Your task to perform on an android device: toggle pop-ups in chrome Image 0: 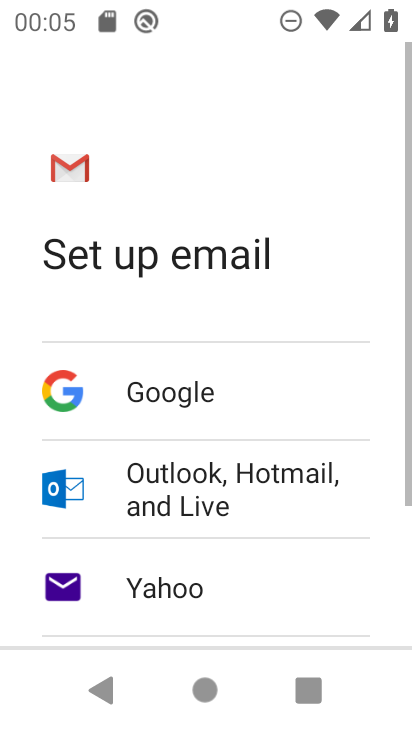
Step 0: press home button
Your task to perform on an android device: toggle pop-ups in chrome Image 1: 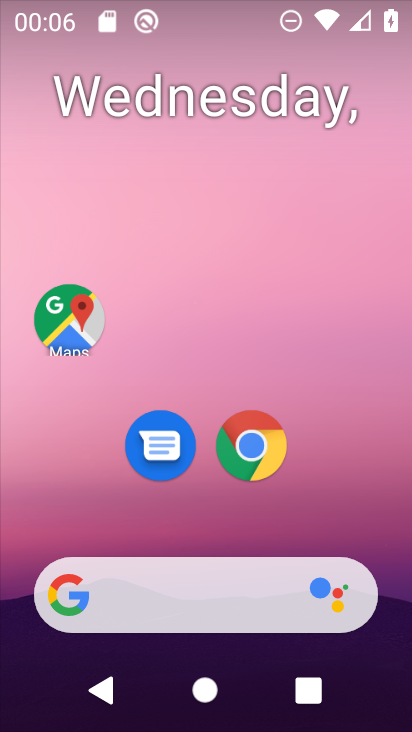
Step 1: click (253, 438)
Your task to perform on an android device: toggle pop-ups in chrome Image 2: 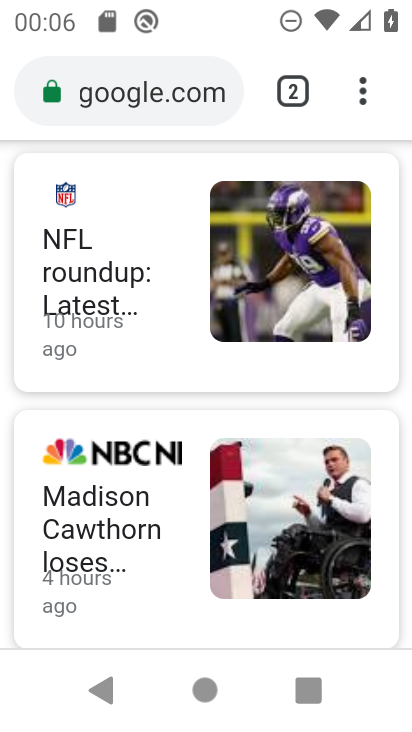
Step 2: click (360, 105)
Your task to perform on an android device: toggle pop-ups in chrome Image 3: 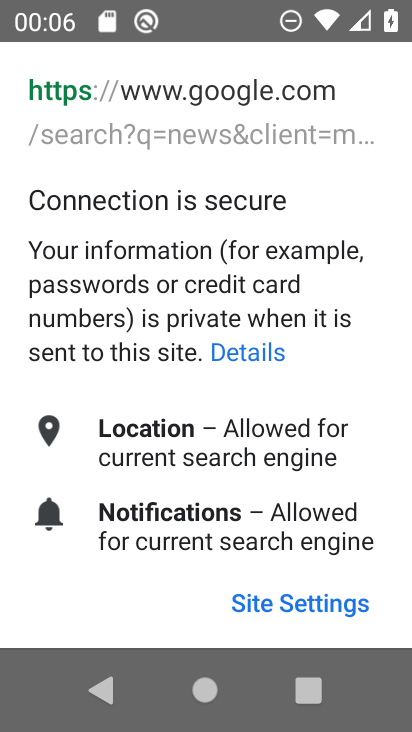
Step 3: press back button
Your task to perform on an android device: toggle pop-ups in chrome Image 4: 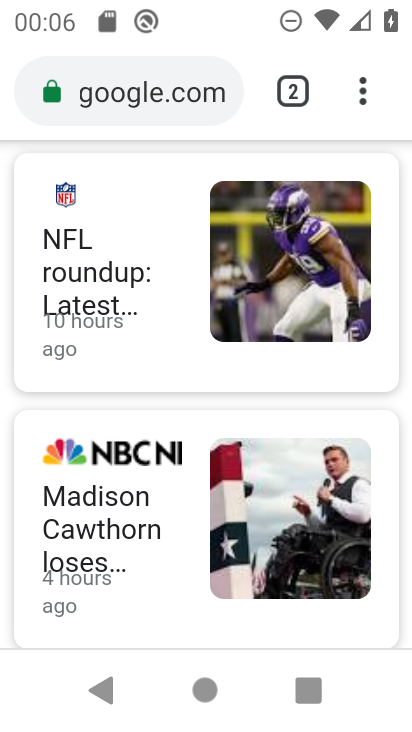
Step 4: click (369, 89)
Your task to perform on an android device: toggle pop-ups in chrome Image 5: 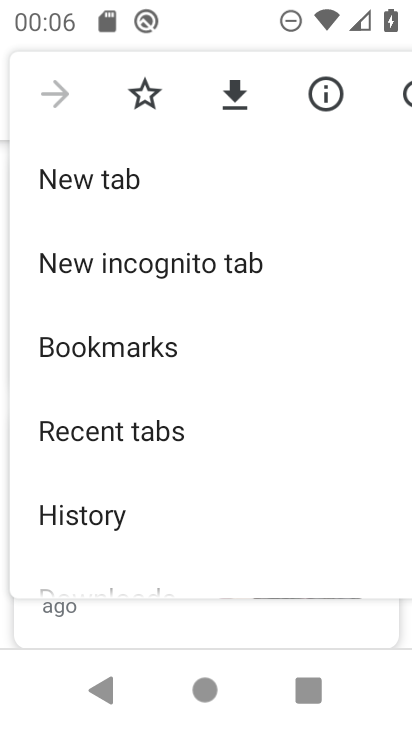
Step 5: drag from (205, 505) to (181, 219)
Your task to perform on an android device: toggle pop-ups in chrome Image 6: 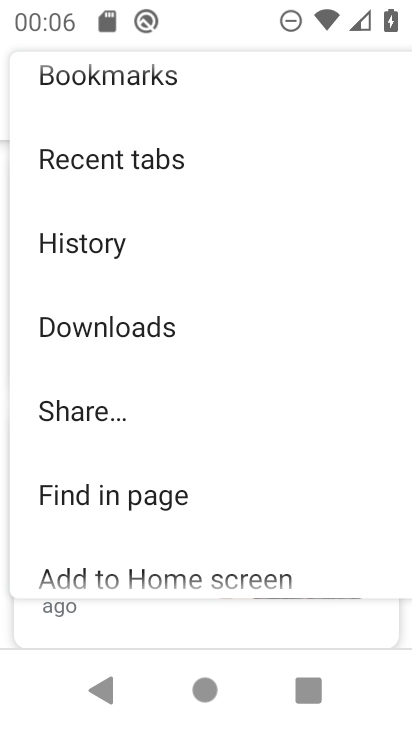
Step 6: drag from (210, 468) to (238, 161)
Your task to perform on an android device: toggle pop-ups in chrome Image 7: 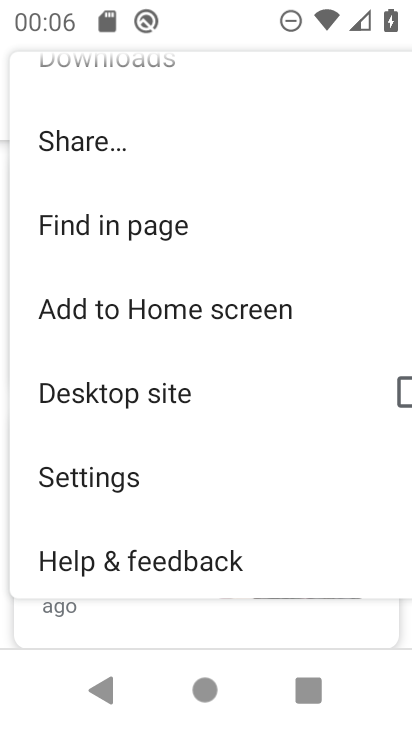
Step 7: click (168, 469)
Your task to perform on an android device: toggle pop-ups in chrome Image 8: 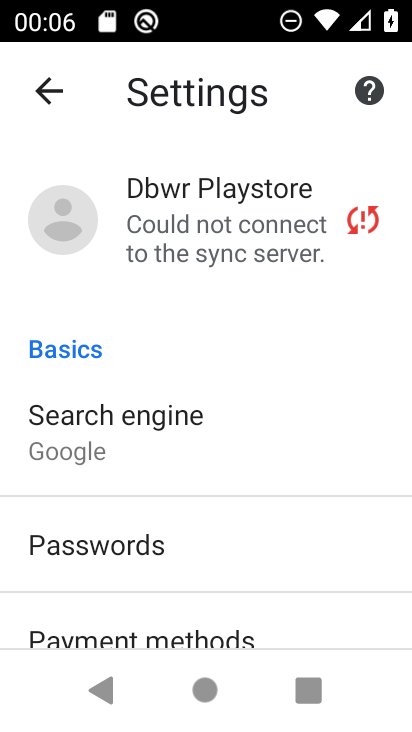
Step 8: drag from (164, 586) to (160, 337)
Your task to perform on an android device: toggle pop-ups in chrome Image 9: 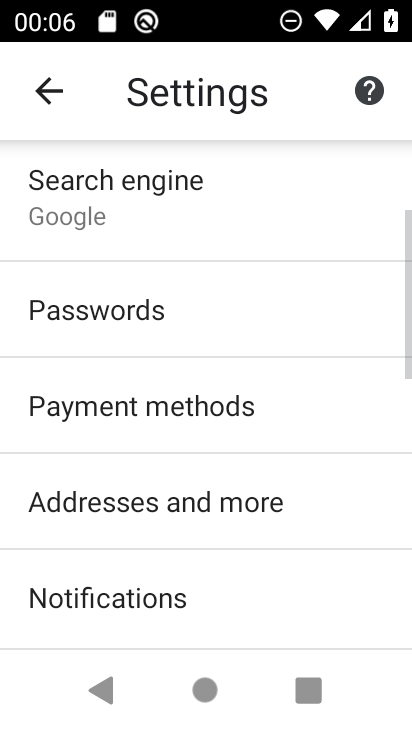
Step 9: drag from (156, 573) to (219, 305)
Your task to perform on an android device: toggle pop-ups in chrome Image 10: 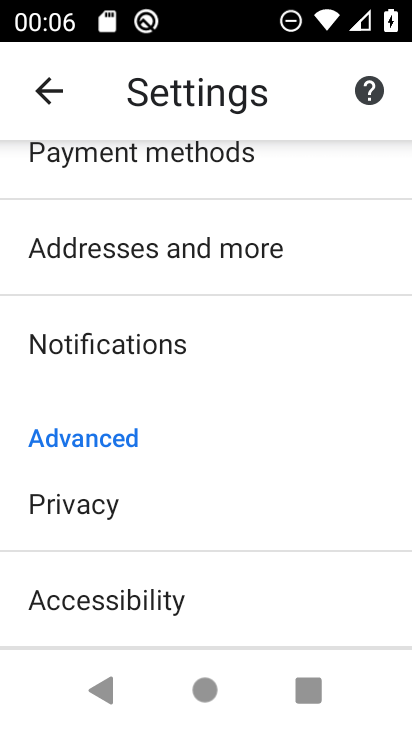
Step 10: drag from (183, 547) to (218, 378)
Your task to perform on an android device: toggle pop-ups in chrome Image 11: 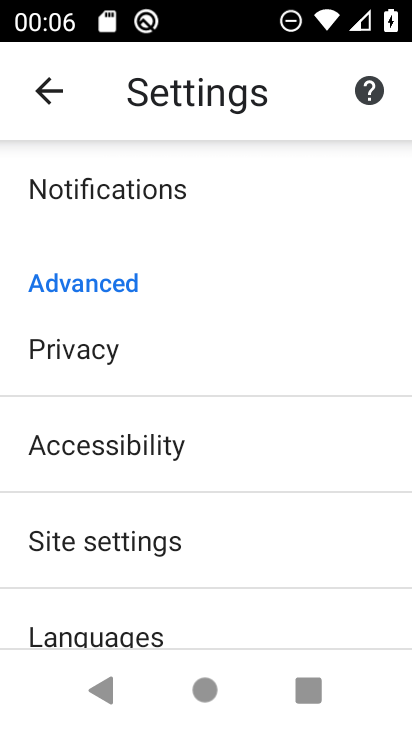
Step 11: click (164, 536)
Your task to perform on an android device: toggle pop-ups in chrome Image 12: 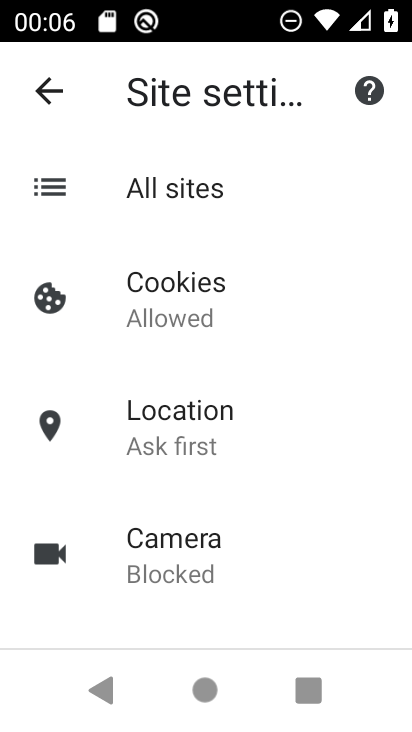
Step 12: drag from (187, 602) to (218, 414)
Your task to perform on an android device: toggle pop-ups in chrome Image 13: 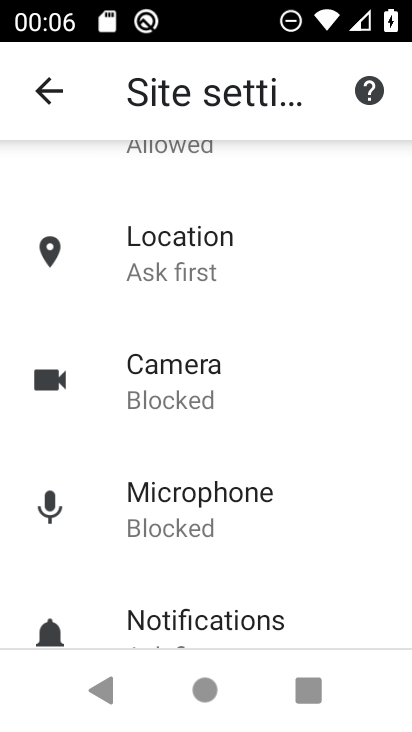
Step 13: drag from (163, 574) to (206, 223)
Your task to perform on an android device: toggle pop-ups in chrome Image 14: 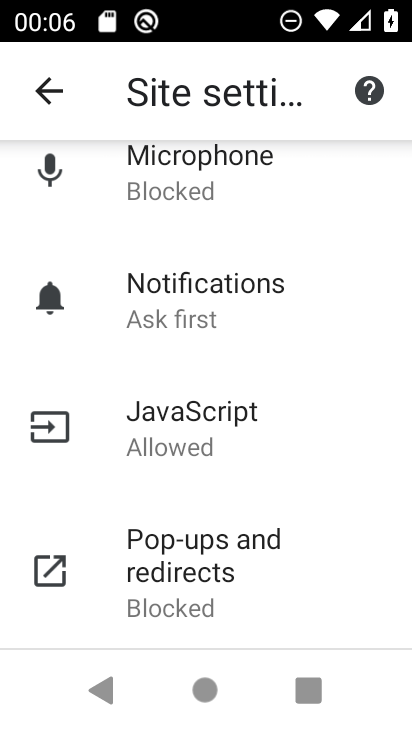
Step 14: click (203, 557)
Your task to perform on an android device: toggle pop-ups in chrome Image 15: 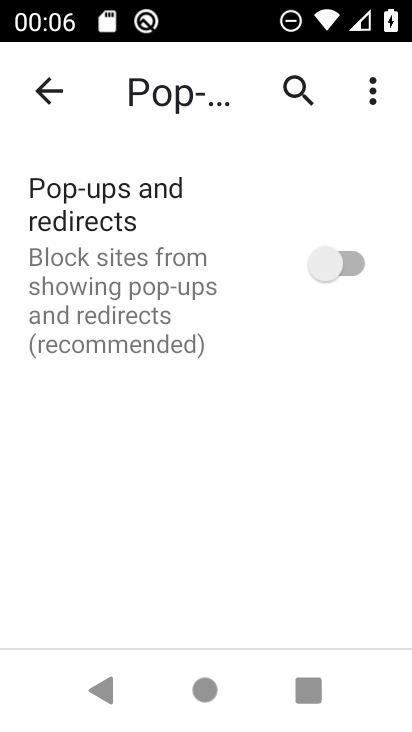
Step 15: click (359, 260)
Your task to perform on an android device: toggle pop-ups in chrome Image 16: 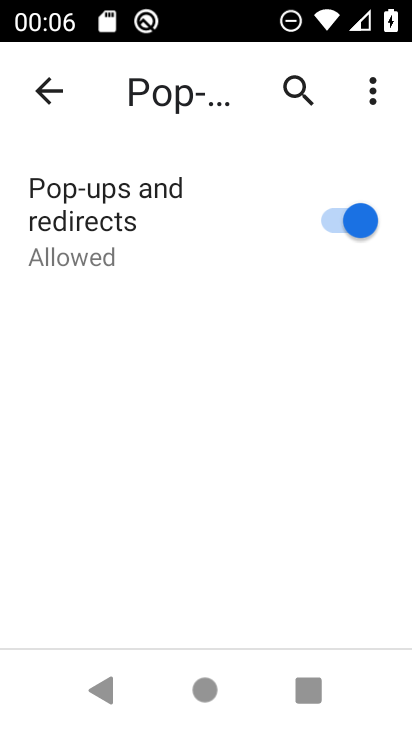
Step 16: task complete